Your task to perform on an android device: Do I have any events today? Image 0: 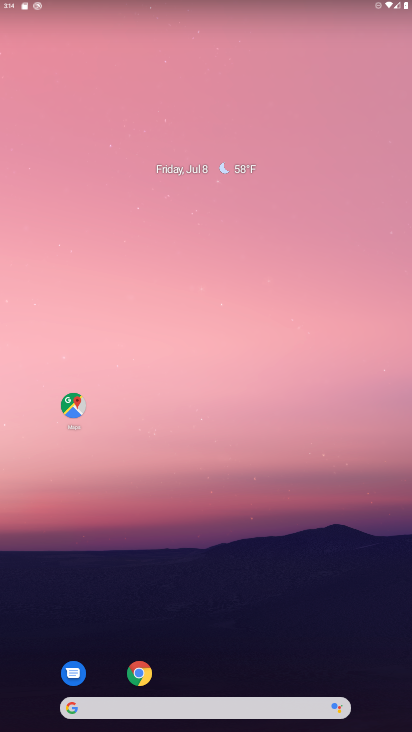
Step 0: drag from (177, 697) to (217, 370)
Your task to perform on an android device: Do I have any events today? Image 1: 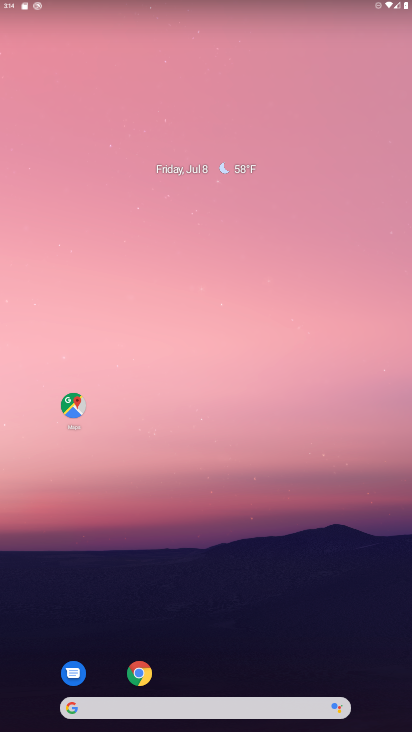
Step 1: drag from (234, 655) to (234, 322)
Your task to perform on an android device: Do I have any events today? Image 2: 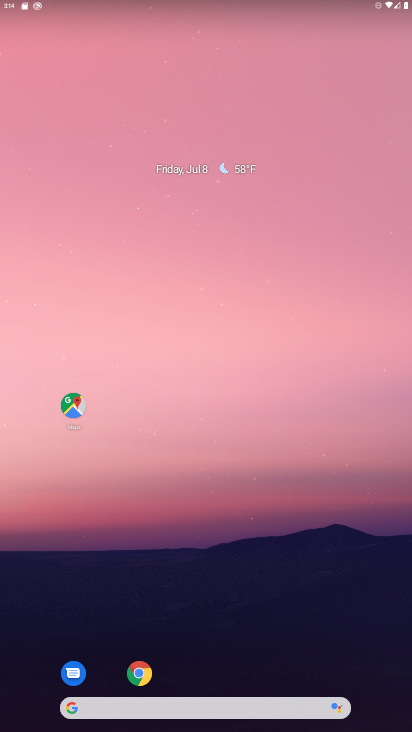
Step 2: drag from (208, 687) to (229, 263)
Your task to perform on an android device: Do I have any events today? Image 3: 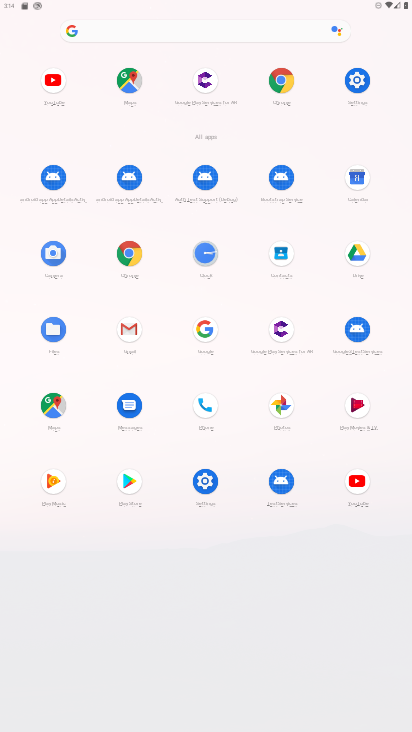
Step 3: click (355, 179)
Your task to perform on an android device: Do I have any events today? Image 4: 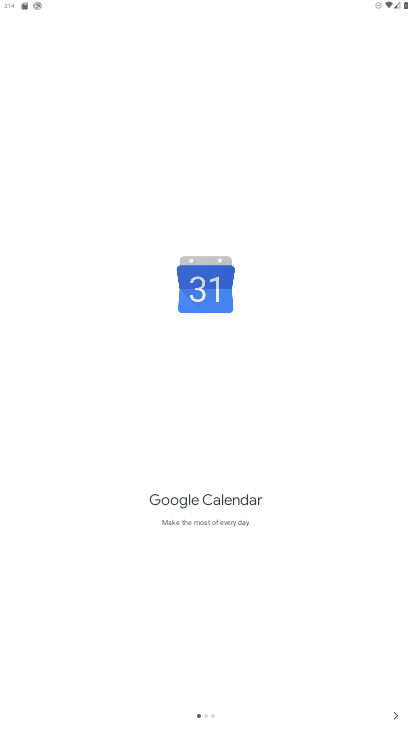
Step 4: click (393, 718)
Your task to perform on an android device: Do I have any events today? Image 5: 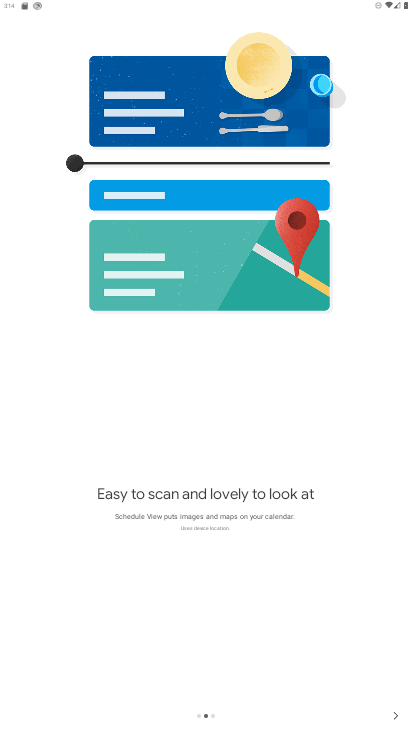
Step 5: click (394, 717)
Your task to perform on an android device: Do I have any events today? Image 6: 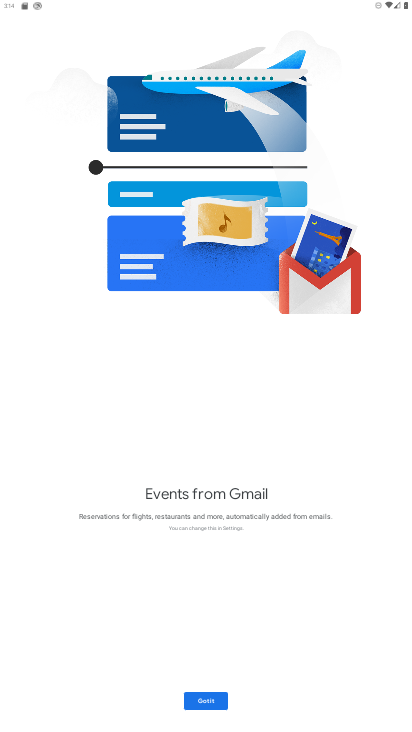
Step 6: click (197, 700)
Your task to perform on an android device: Do I have any events today? Image 7: 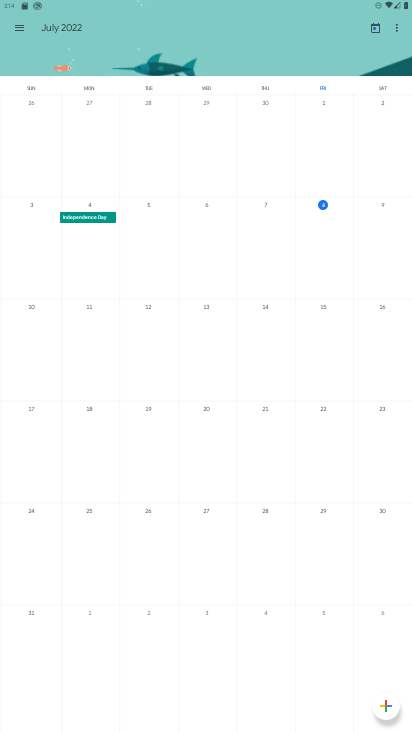
Step 7: click (321, 204)
Your task to perform on an android device: Do I have any events today? Image 8: 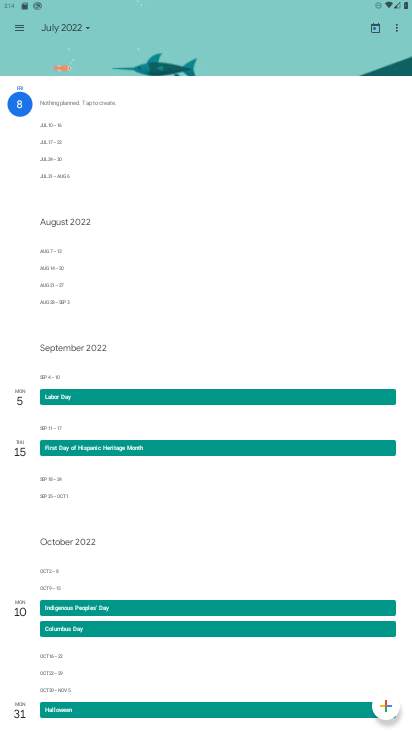
Step 8: task complete